Your task to perform on an android device: turn off airplane mode Image 0: 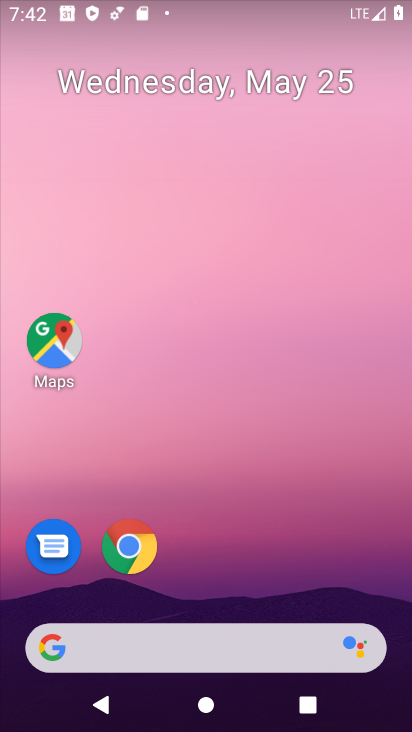
Step 0: drag from (373, 592) to (382, 252)
Your task to perform on an android device: turn off airplane mode Image 1: 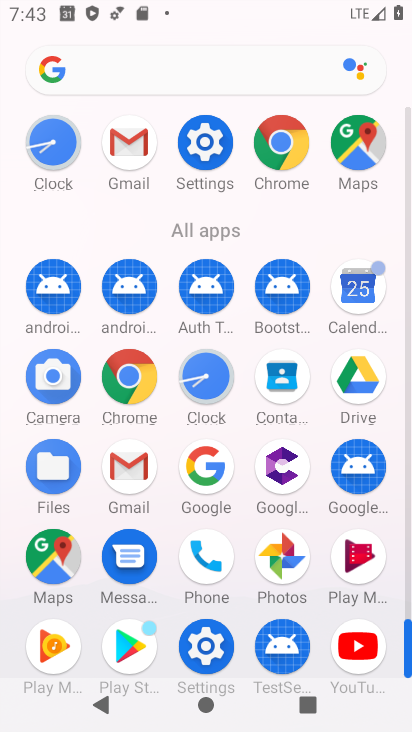
Step 1: click (205, 666)
Your task to perform on an android device: turn off airplane mode Image 2: 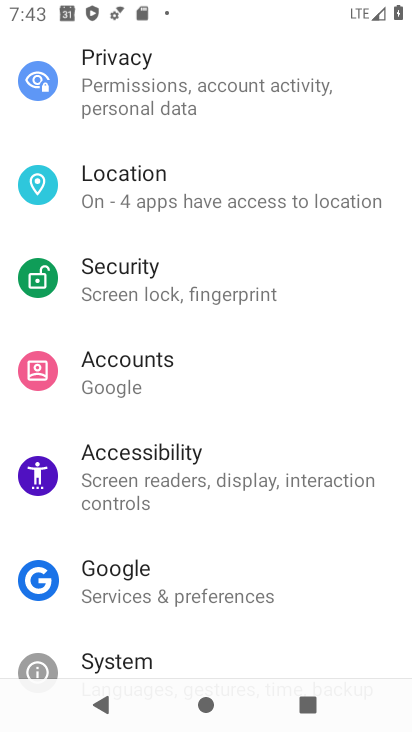
Step 2: drag from (346, 370) to (348, 412)
Your task to perform on an android device: turn off airplane mode Image 3: 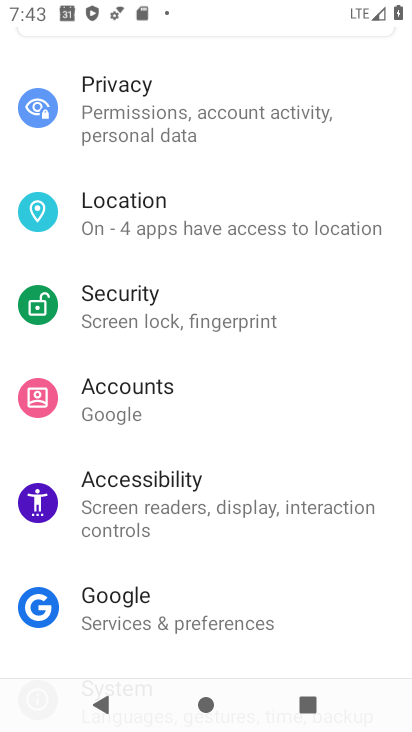
Step 3: drag from (360, 320) to (367, 409)
Your task to perform on an android device: turn off airplane mode Image 4: 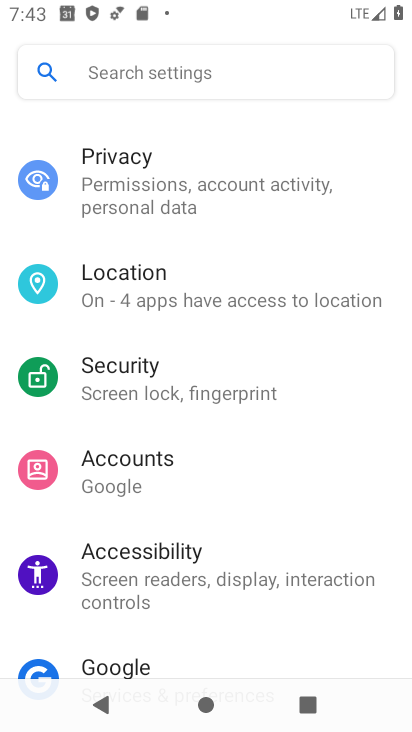
Step 4: drag from (373, 347) to (373, 427)
Your task to perform on an android device: turn off airplane mode Image 5: 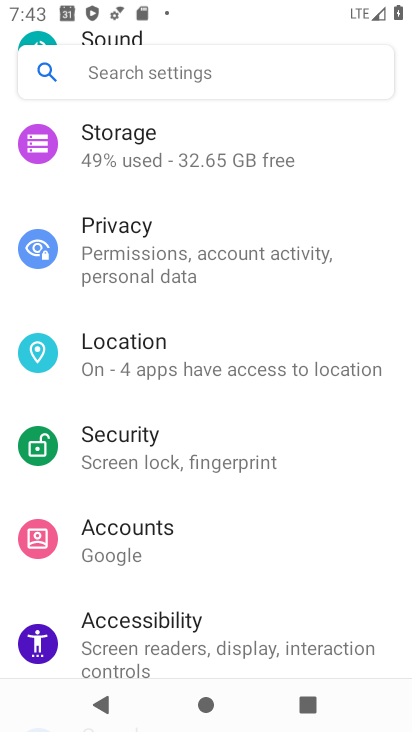
Step 5: drag from (380, 321) to (394, 410)
Your task to perform on an android device: turn off airplane mode Image 6: 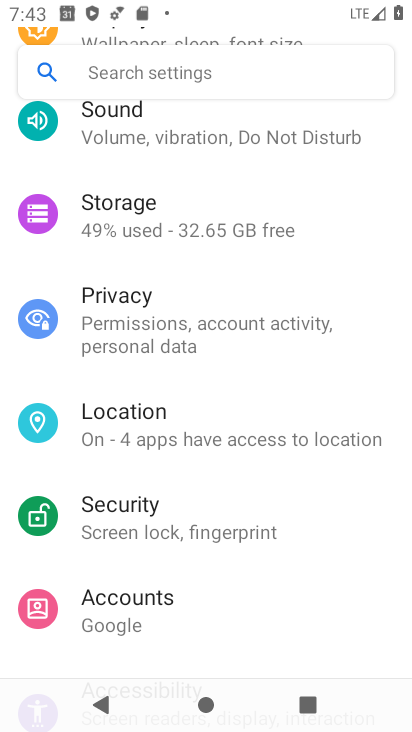
Step 6: drag from (393, 312) to (383, 400)
Your task to perform on an android device: turn off airplane mode Image 7: 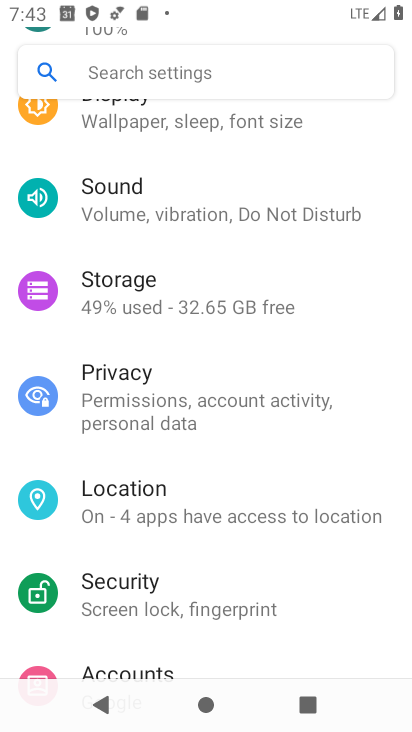
Step 7: drag from (379, 334) to (367, 405)
Your task to perform on an android device: turn off airplane mode Image 8: 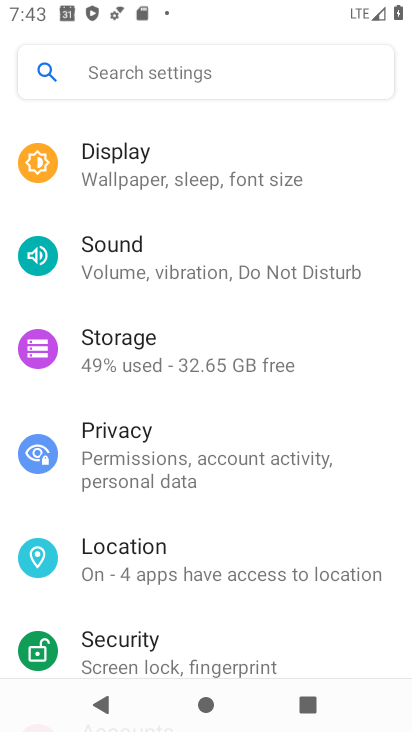
Step 8: drag from (381, 336) to (379, 400)
Your task to perform on an android device: turn off airplane mode Image 9: 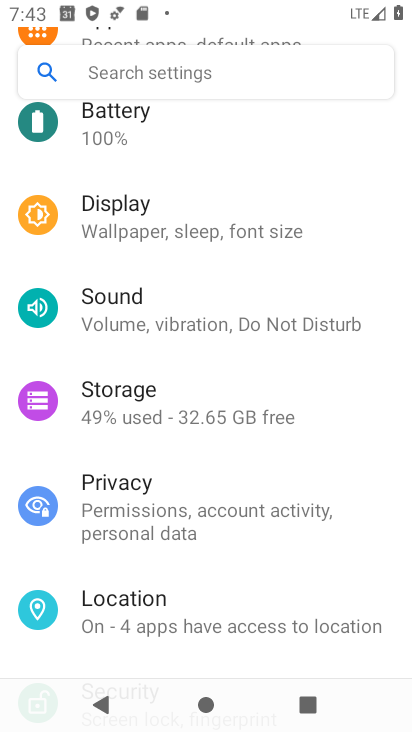
Step 9: drag from (379, 308) to (357, 417)
Your task to perform on an android device: turn off airplane mode Image 10: 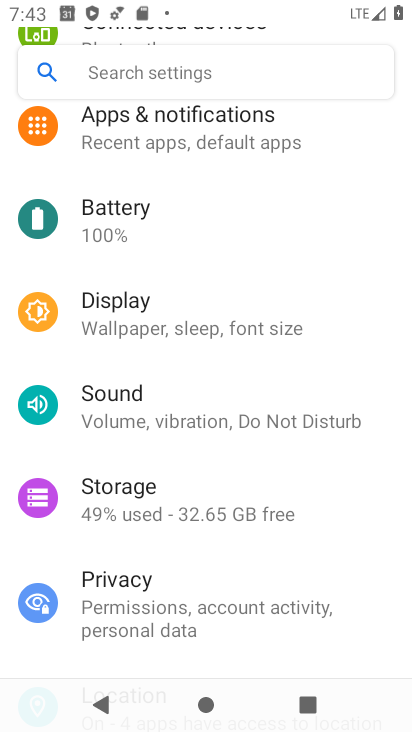
Step 10: drag from (365, 318) to (364, 463)
Your task to perform on an android device: turn off airplane mode Image 11: 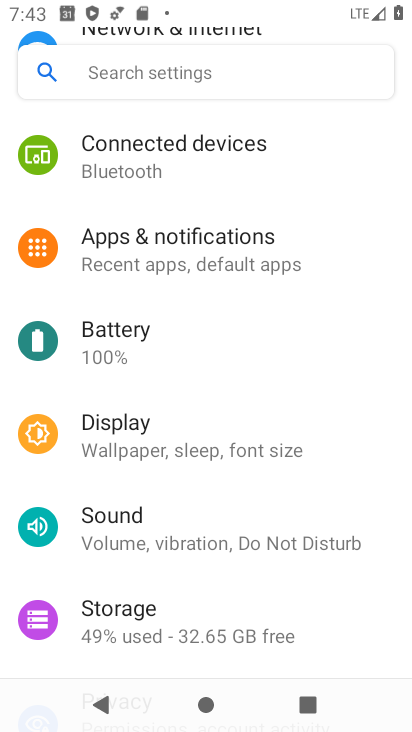
Step 11: drag from (375, 309) to (373, 408)
Your task to perform on an android device: turn off airplane mode Image 12: 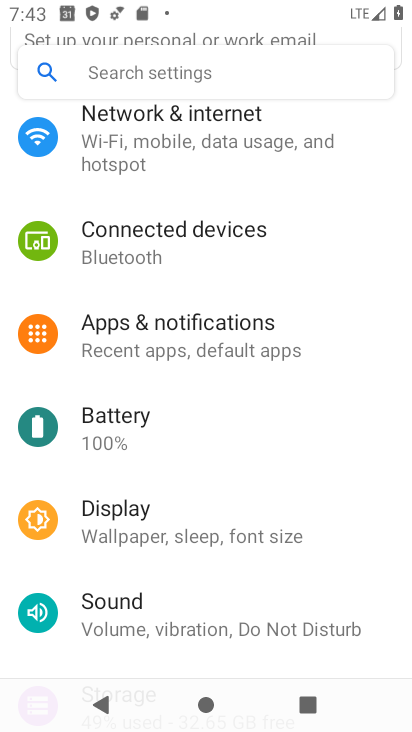
Step 12: drag from (358, 287) to (341, 466)
Your task to perform on an android device: turn off airplane mode Image 13: 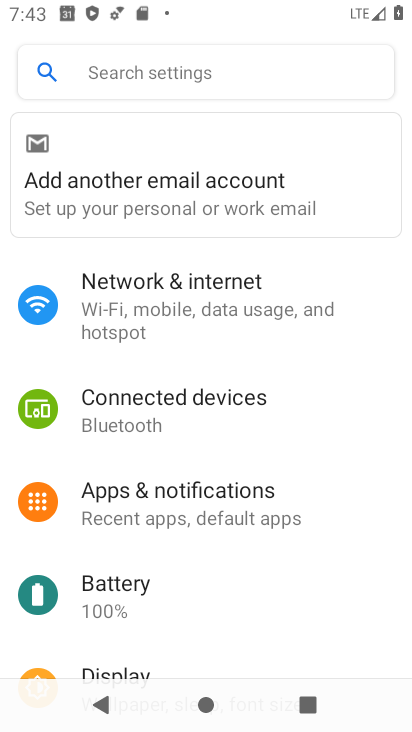
Step 13: drag from (363, 308) to (370, 427)
Your task to perform on an android device: turn off airplane mode Image 14: 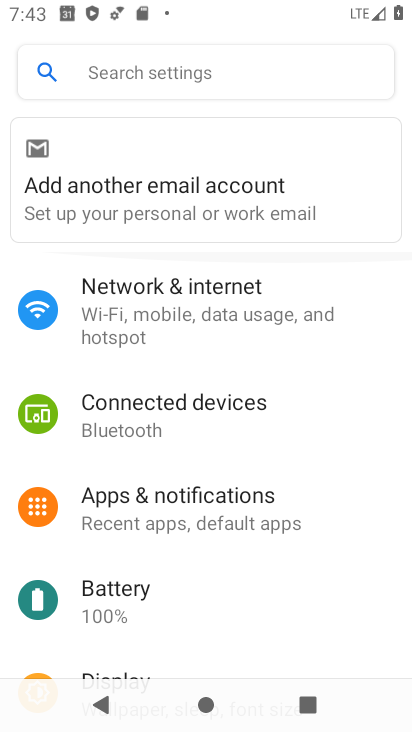
Step 14: click (332, 321)
Your task to perform on an android device: turn off airplane mode Image 15: 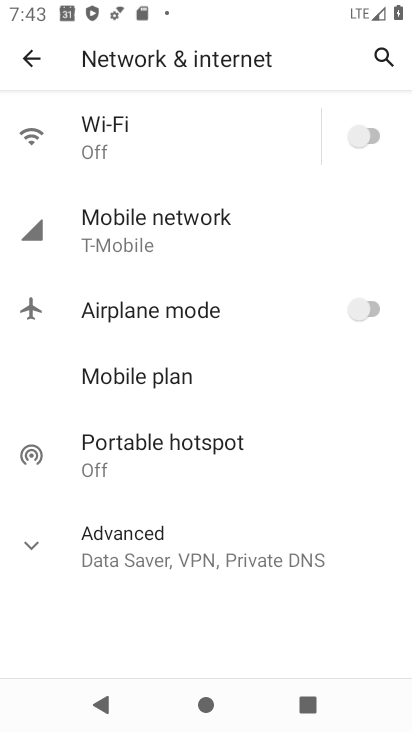
Step 15: task complete